Your task to perform on an android device: Open accessibility settings Image 0: 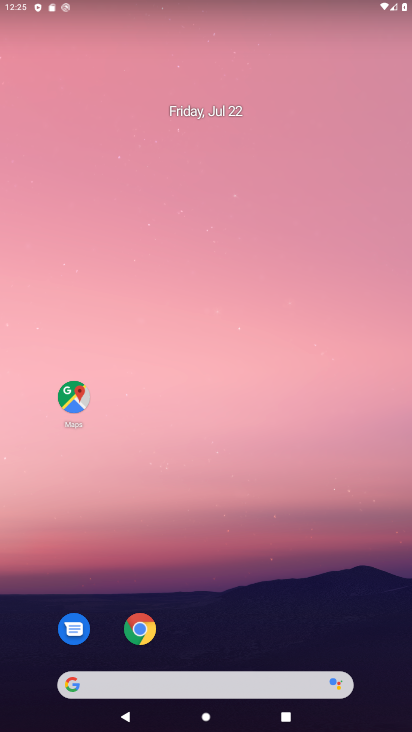
Step 0: drag from (194, 614) to (191, 157)
Your task to perform on an android device: Open accessibility settings Image 1: 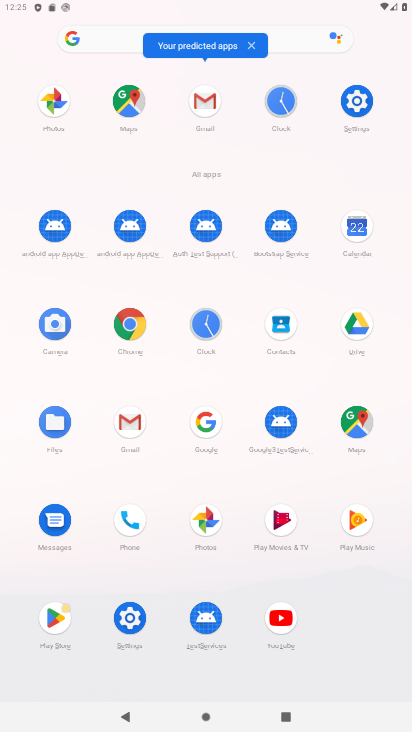
Step 1: click (360, 102)
Your task to perform on an android device: Open accessibility settings Image 2: 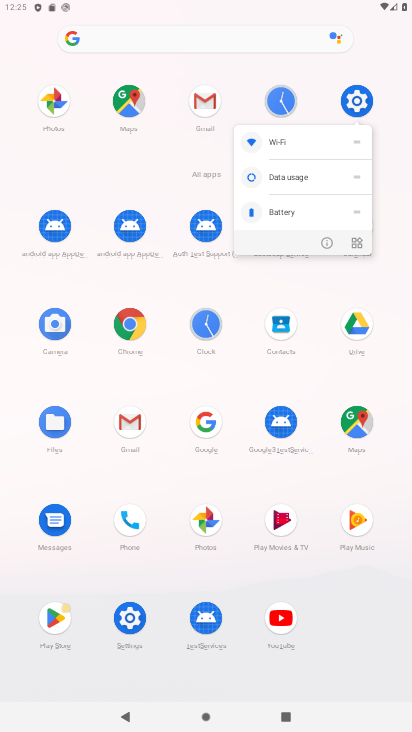
Step 2: click (360, 102)
Your task to perform on an android device: Open accessibility settings Image 3: 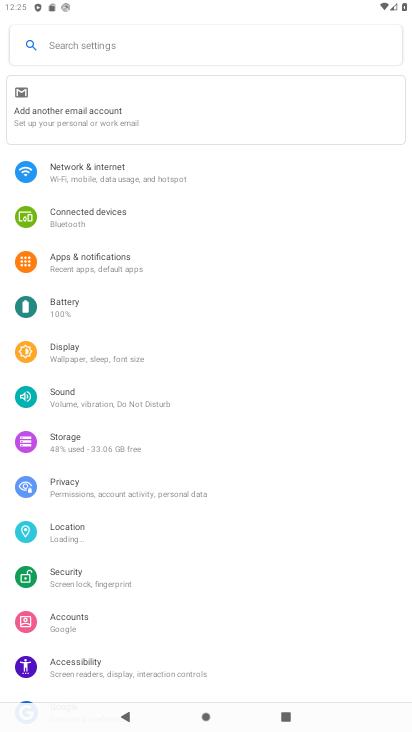
Step 3: click (79, 672)
Your task to perform on an android device: Open accessibility settings Image 4: 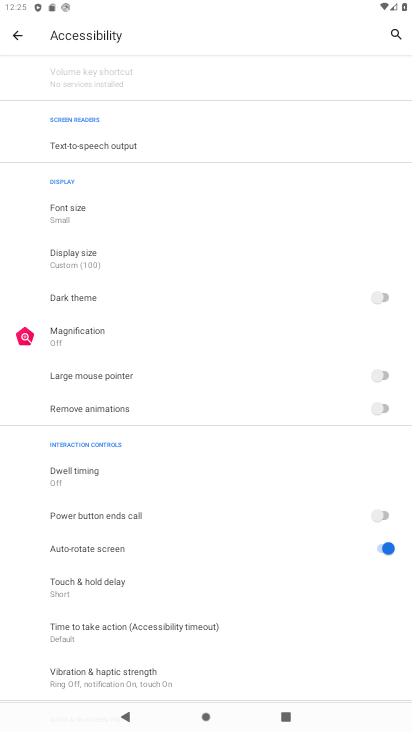
Step 4: task complete